Your task to perform on an android device: Open accessibility settings Image 0: 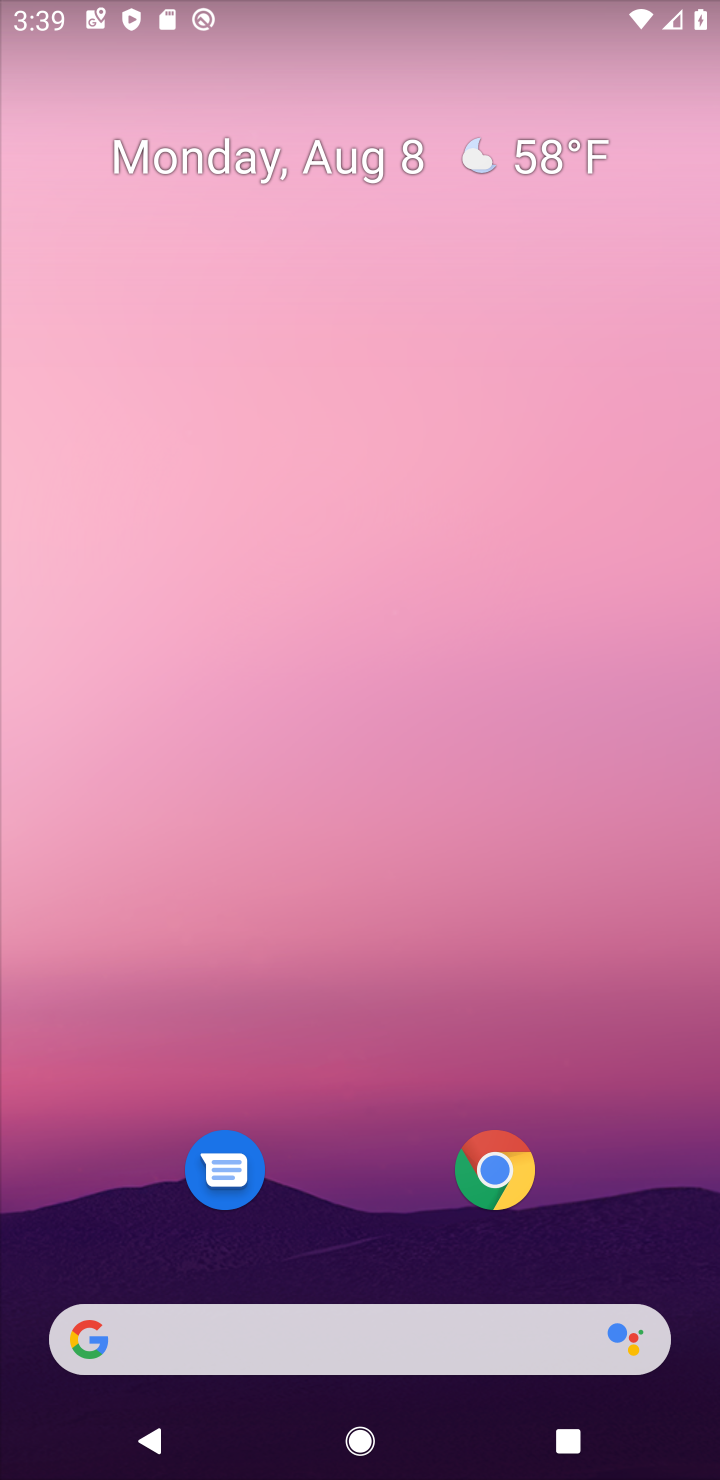
Step 0: drag from (351, 1158) to (289, 377)
Your task to perform on an android device: Open accessibility settings Image 1: 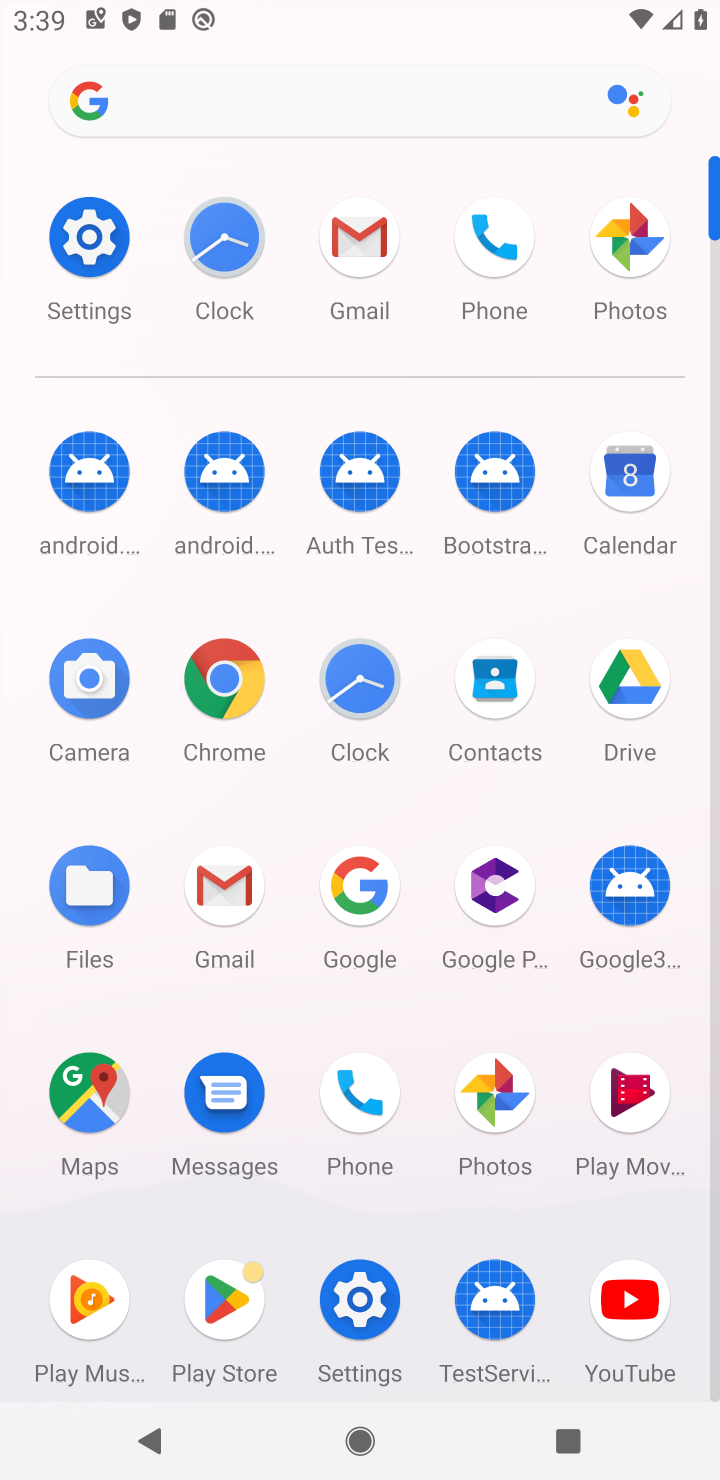
Step 1: click (88, 273)
Your task to perform on an android device: Open accessibility settings Image 2: 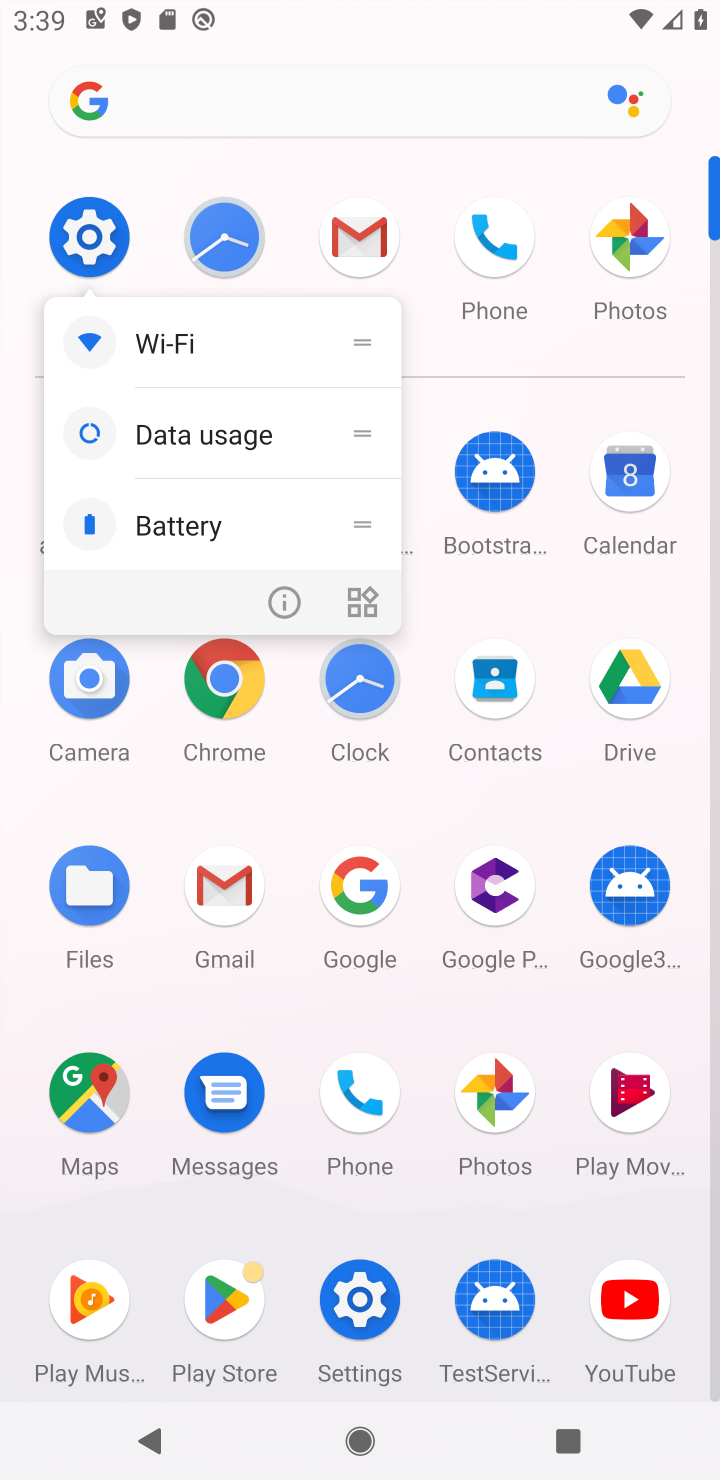
Step 2: click (107, 228)
Your task to perform on an android device: Open accessibility settings Image 3: 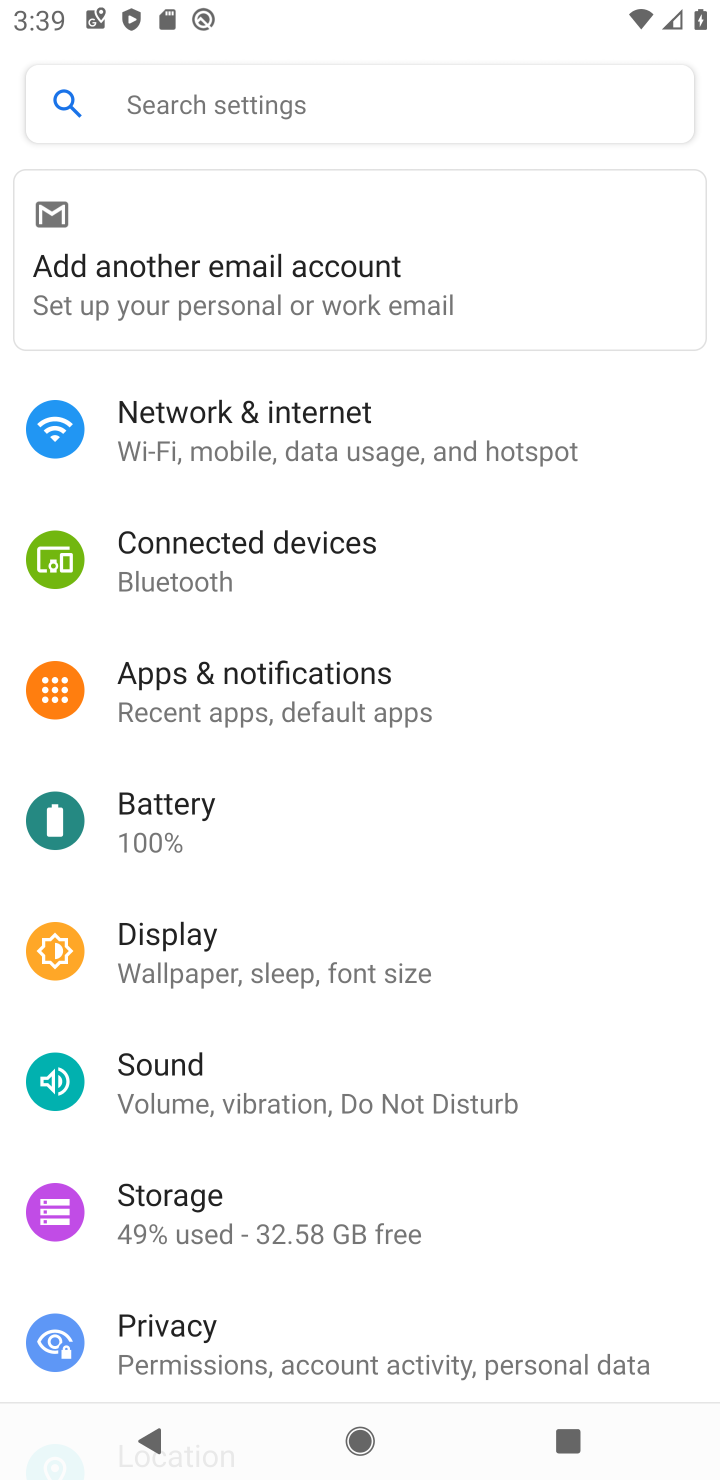
Step 3: drag from (362, 1255) to (367, 651)
Your task to perform on an android device: Open accessibility settings Image 4: 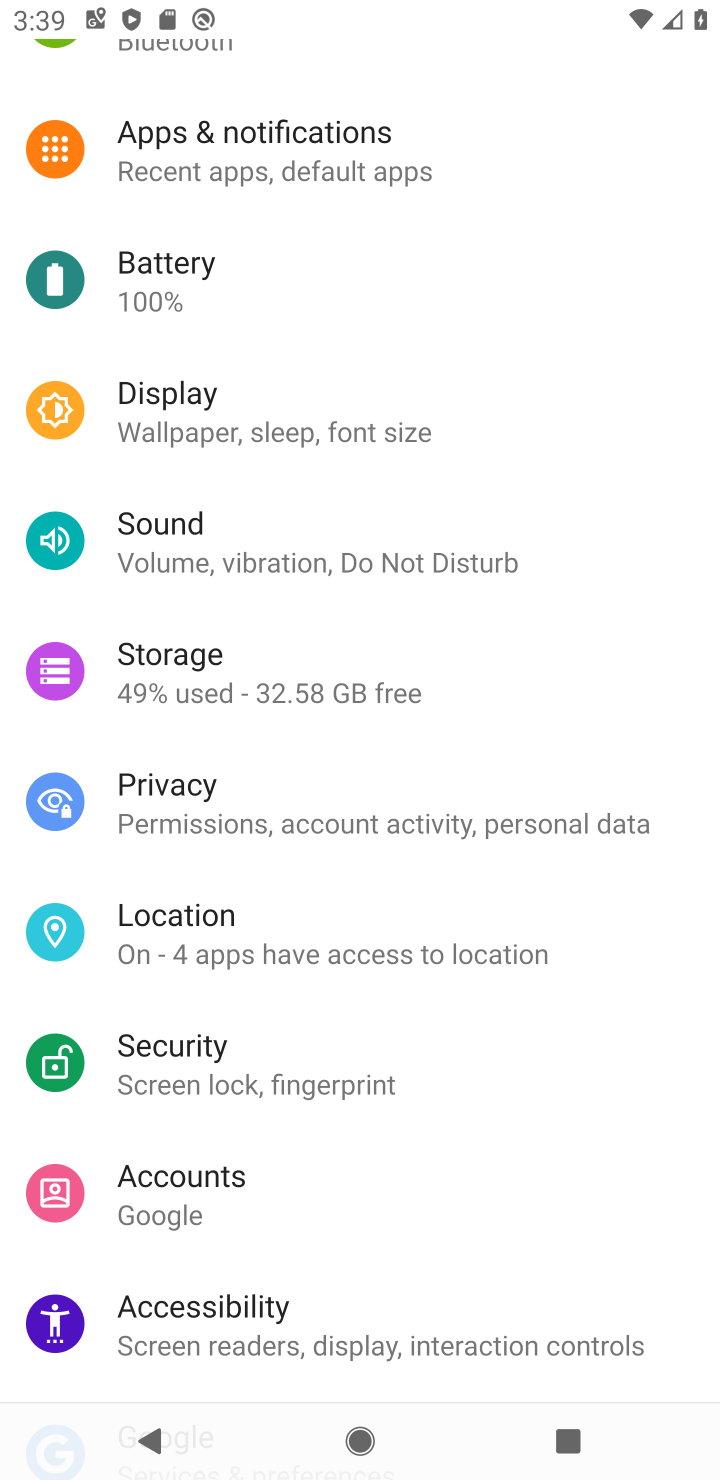
Step 4: click (235, 1297)
Your task to perform on an android device: Open accessibility settings Image 5: 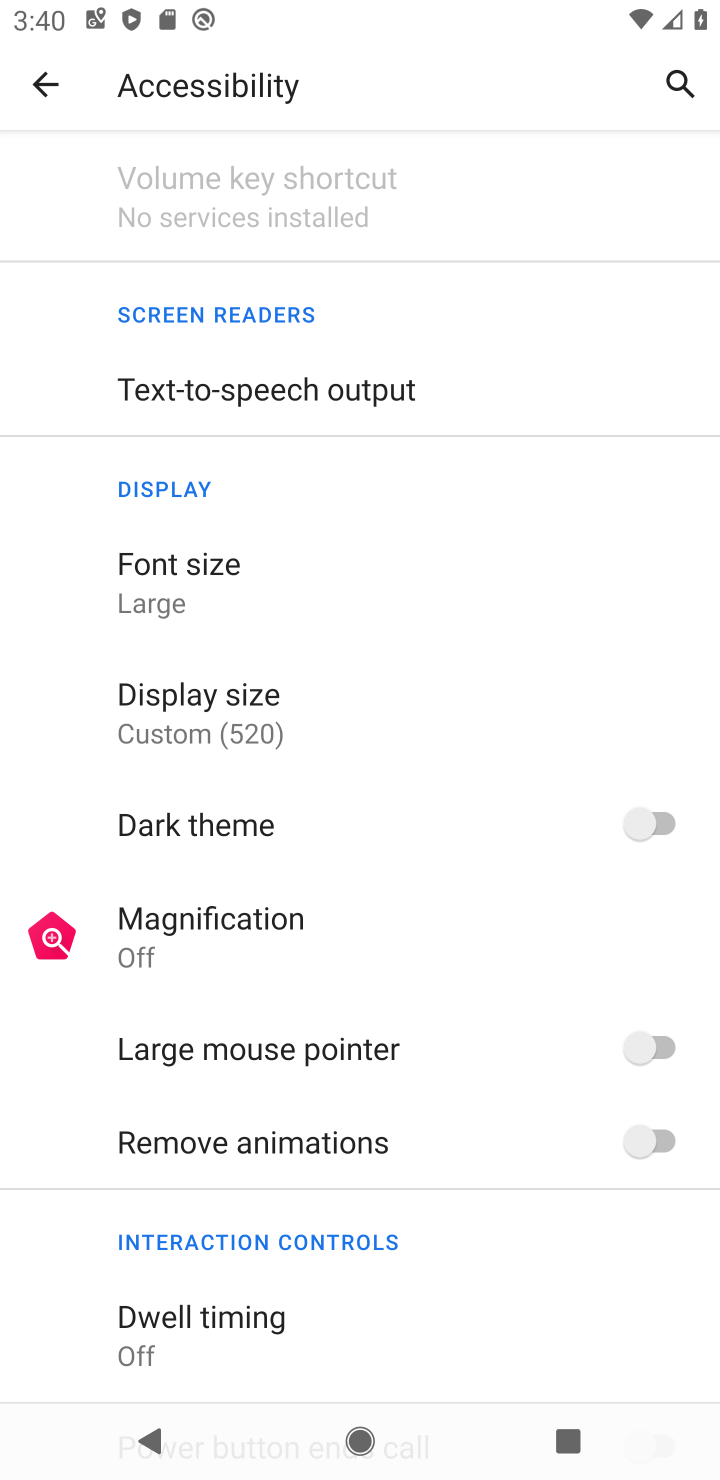
Step 5: task complete